Your task to perform on an android device: Open notification settings Image 0: 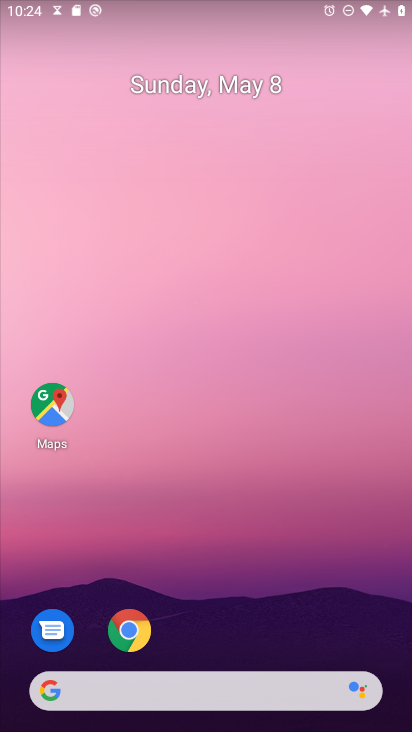
Step 0: press home button
Your task to perform on an android device: Open notification settings Image 1: 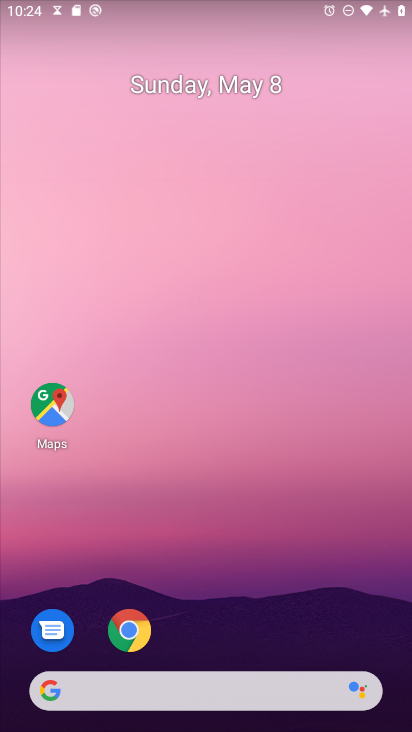
Step 1: drag from (231, 700) to (332, 58)
Your task to perform on an android device: Open notification settings Image 2: 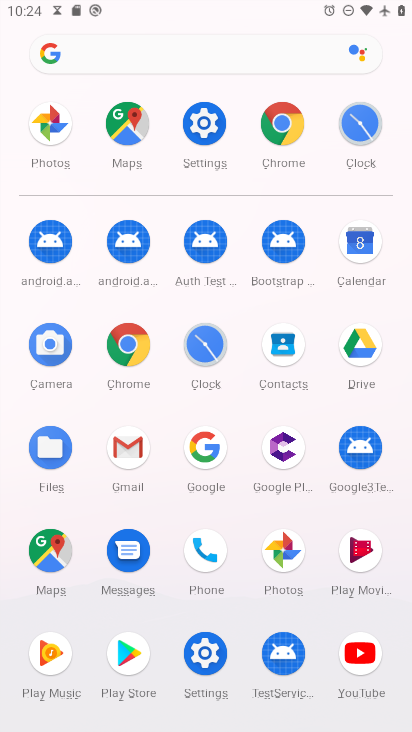
Step 2: click (210, 115)
Your task to perform on an android device: Open notification settings Image 3: 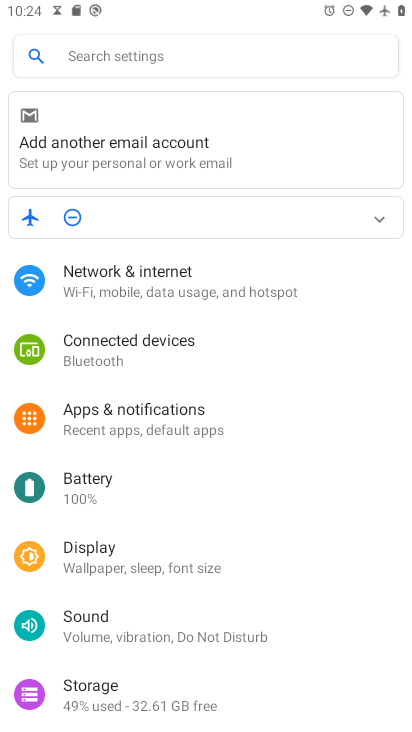
Step 3: click (175, 423)
Your task to perform on an android device: Open notification settings Image 4: 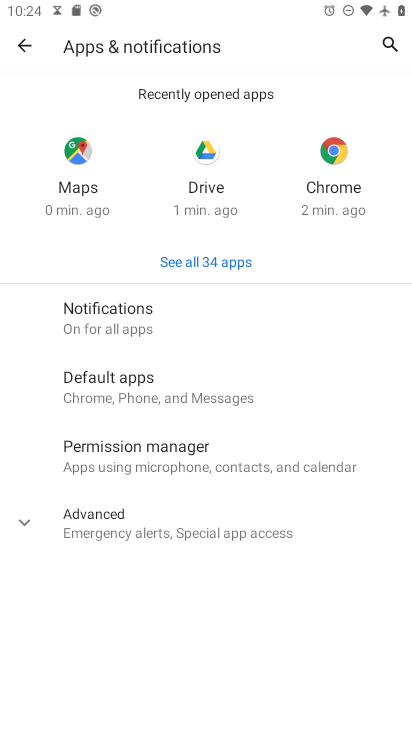
Step 4: click (92, 327)
Your task to perform on an android device: Open notification settings Image 5: 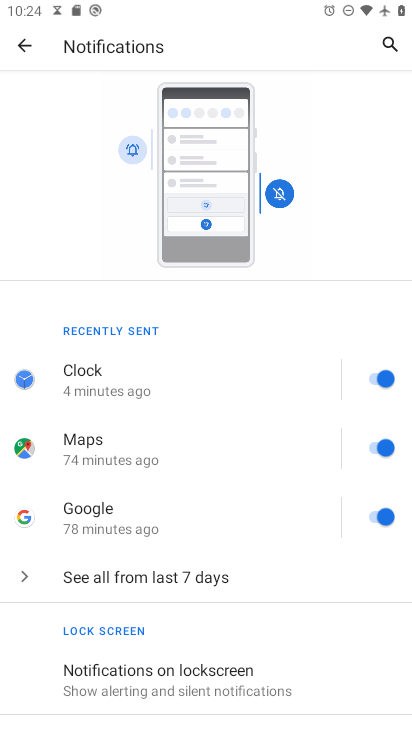
Step 5: task complete